Your task to perform on an android device: Open Google Image 0: 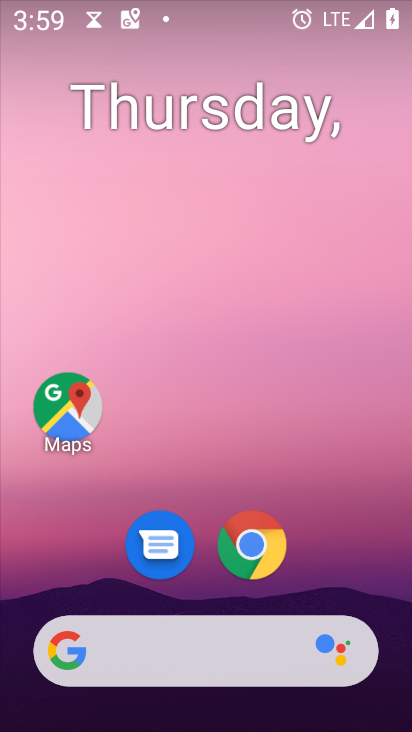
Step 0: drag from (356, 572) to (303, 48)
Your task to perform on an android device: Open Google Image 1: 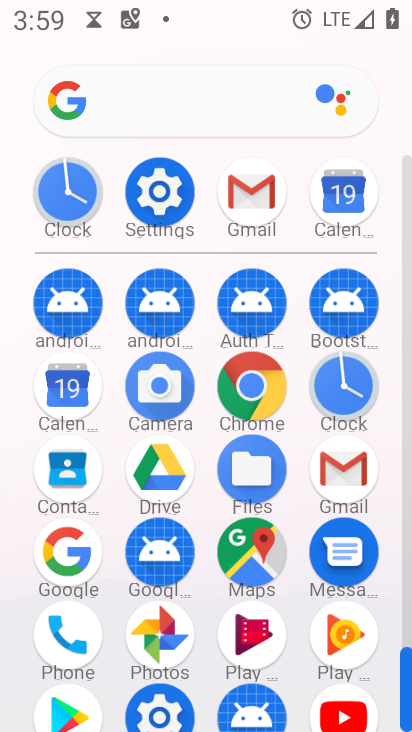
Step 1: click (76, 565)
Your task to perform on an android device: Open Google Image 2: 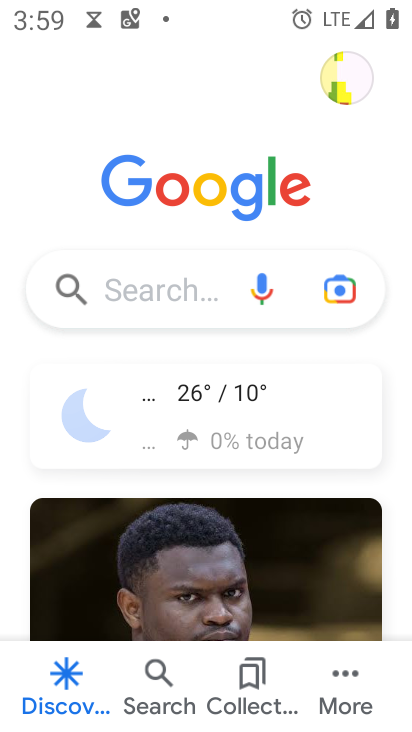
Step 2: task complete